Your task to perform on an android device: Toggle the flashlight Image 0: 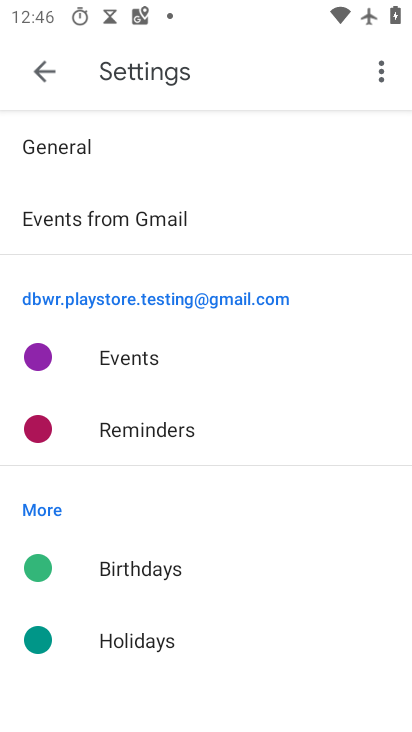
Step 0: press home button
Your task to perform on an android device: Toggle the flashlight Image 1: 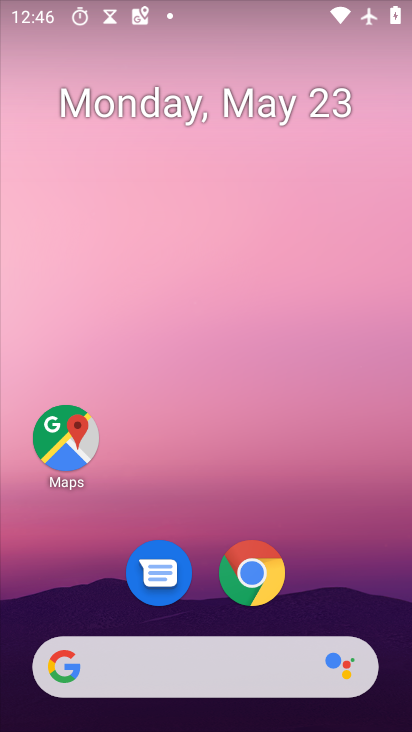
Step 1: task complete